Your task to perform on an android device: toggle improve location accuracy Image 0: 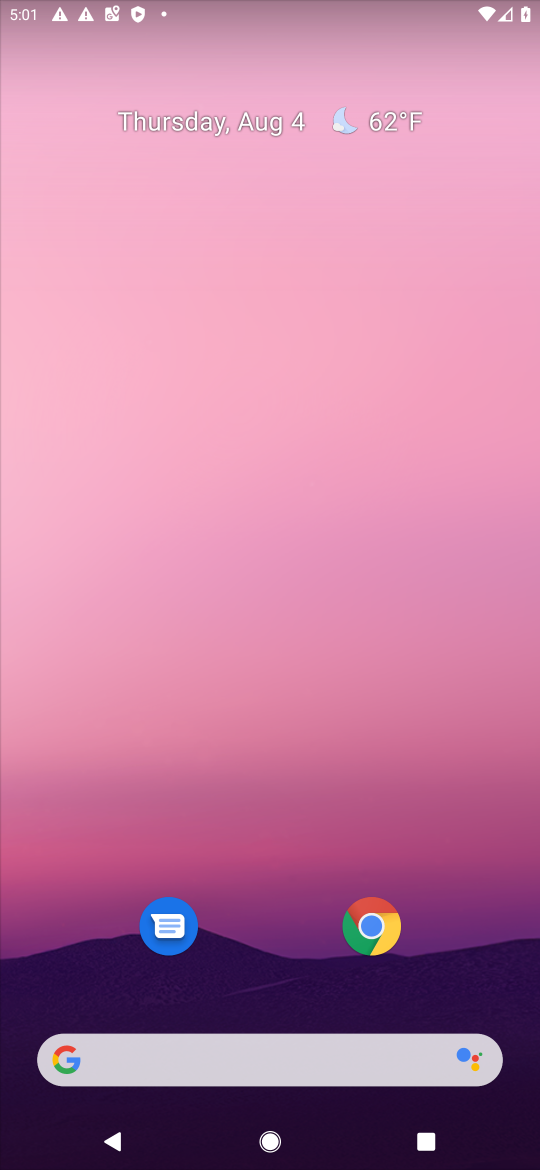
Step 0: press home button
Your task to perform on an android device: toggle improve location accuracy Image 1: 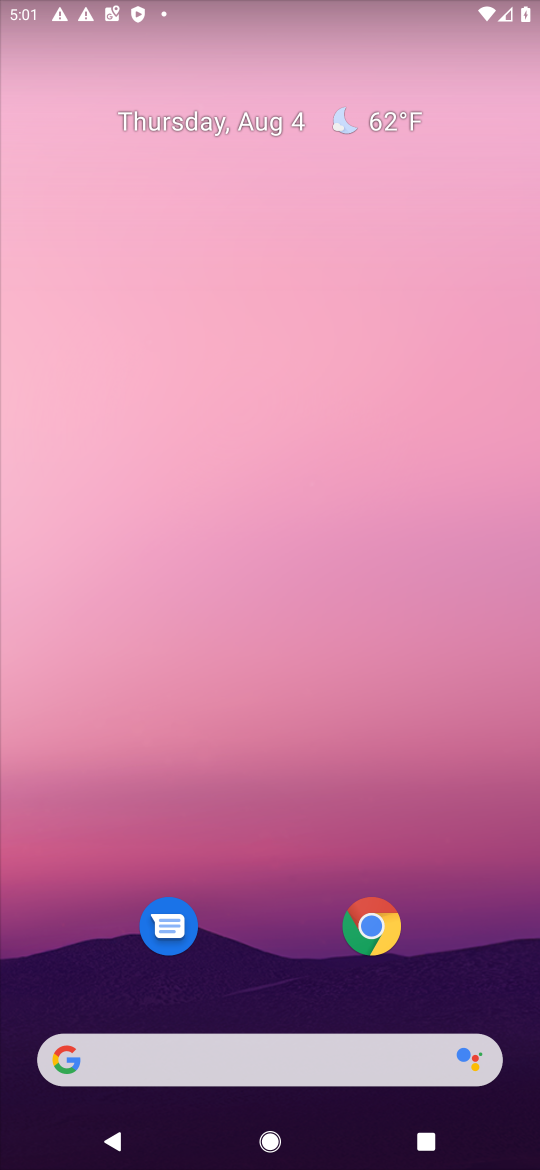
Step 1: drag from (247, 986) to (285, 356)
Your task to perform on an android device: toggle improve location accuracy Image 2: 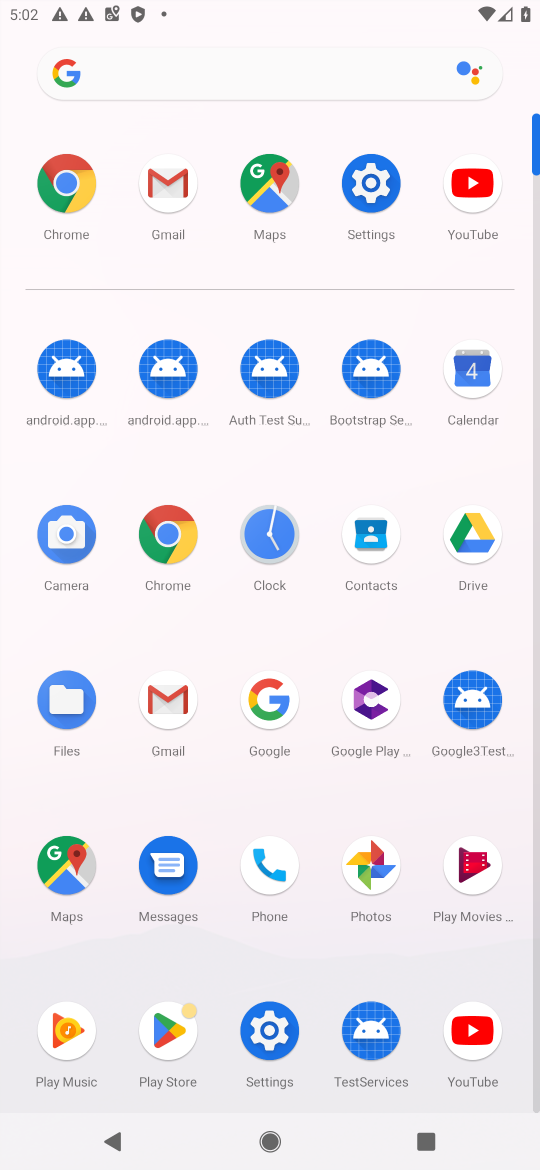
Step 2: click (367, 188)
Your task to perform on an android device: toggle improve location accuracy Image 3: 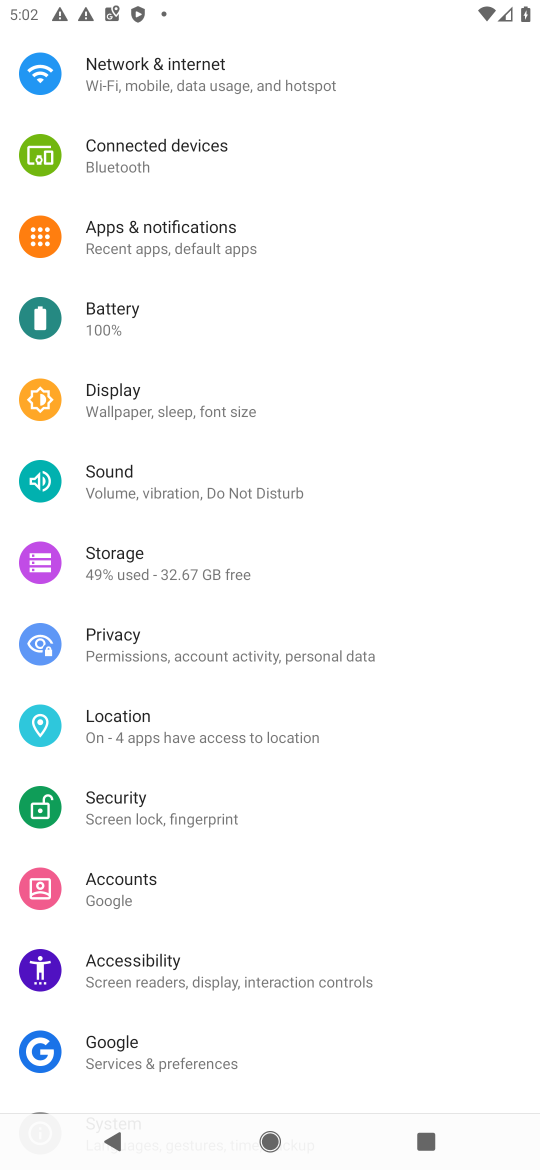
Step 3: click (138, 723)
Your task to perform on an android device: toggle improve location accuracy Image 4: 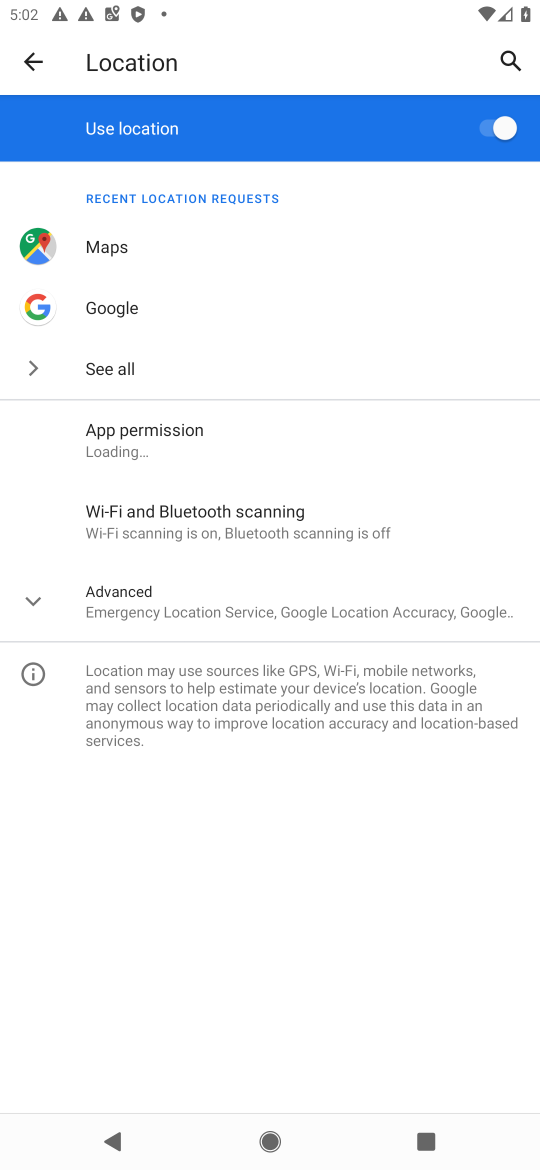
Step 4: click (156, 603)
Your task to perform on an android device: toggle improve location accuracy Image 5: 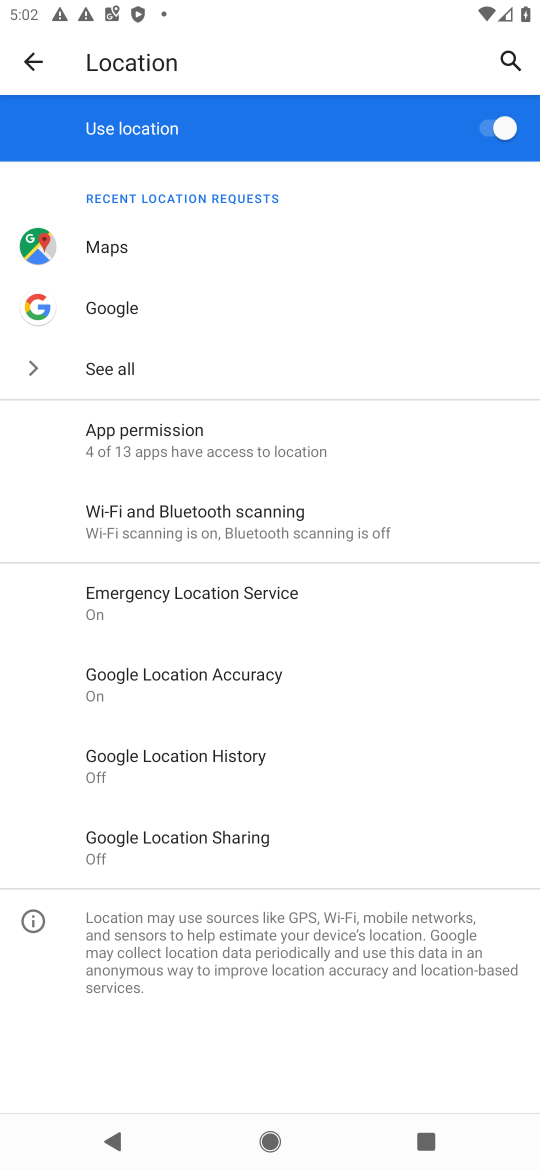
Step 5: click (170, 677)
Your task to perform on an android device: toggle improve location accuracy Image 6: 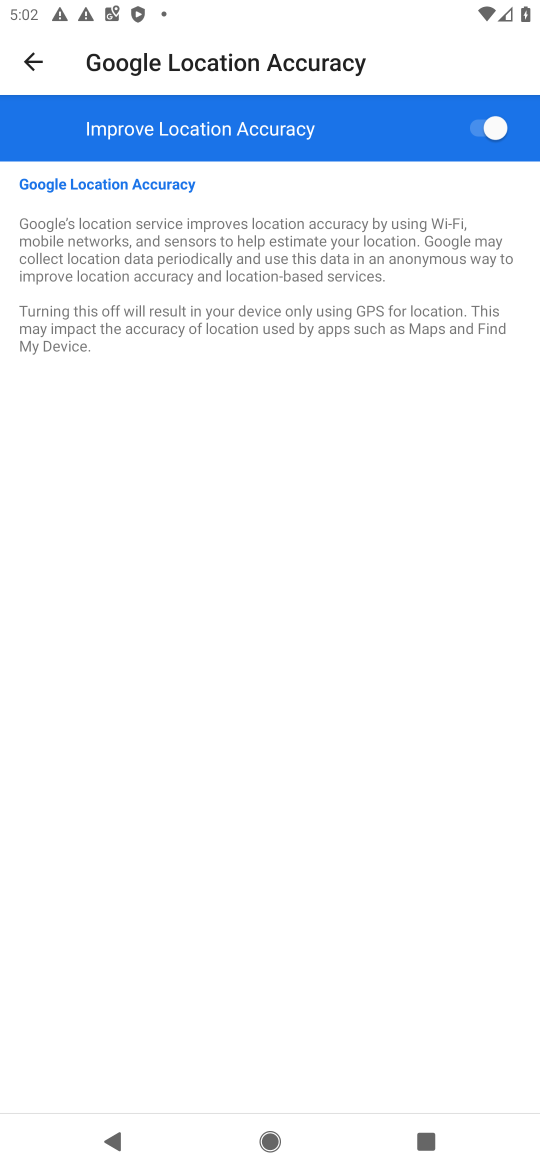
Step 6: click (509, 125)
Your task to perform on an android device: toggle improve location accuracy Image 7: 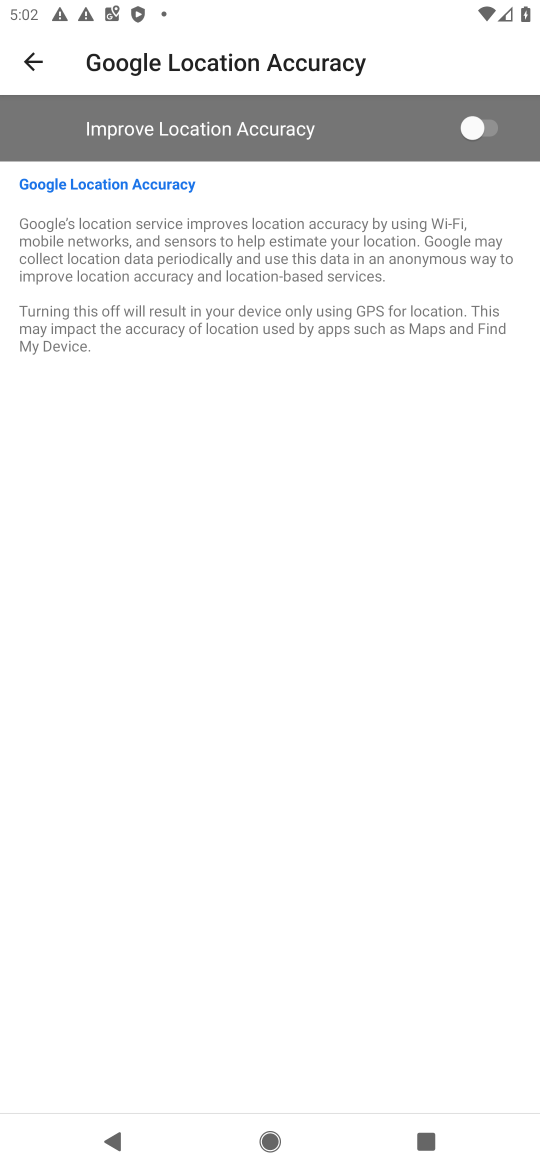
Step 7: task complete